Your task to perform on an android device: What's on Reddit this week Image 0: 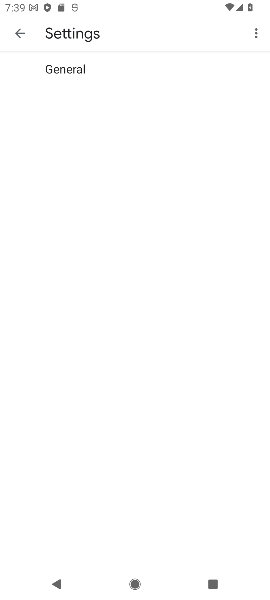
Step 0: press home button
Your task to perform on an android device: What's on Reddit this week Image 1: 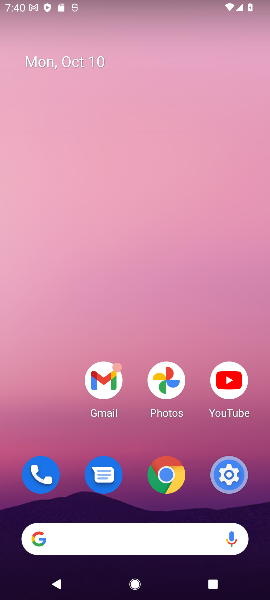
Step 1: drag from (61, 159) to (58, 125)
Your task to perform on an android device: What's on Reddit this week Image 2: 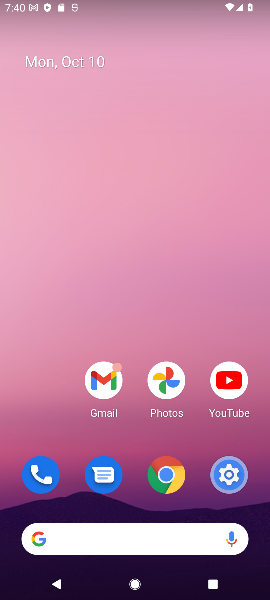
Step 2: drag from (150, 504) to (153, 51)
Your task to perform on an android device: What's on Reddit this week Image 3: 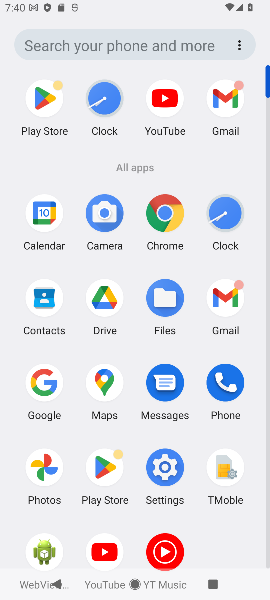
Step 3: click (109, 476)
Your task to perform on an android device: What's on Reddit this week Image 4: 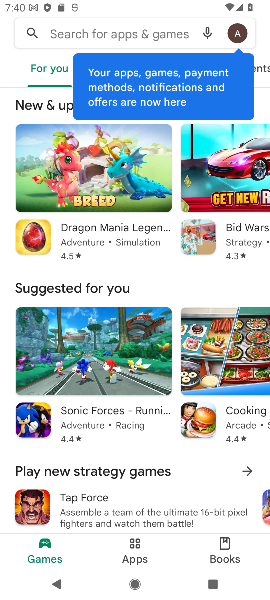
Step 4: click (127, 24)
Your task to perform on an android device: What's on Reddit this week Image 5: 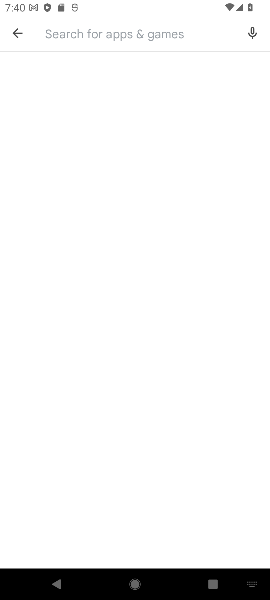
Step 5: type ""
Your task to perform on an android device: What's on Reddit this week Image 6: 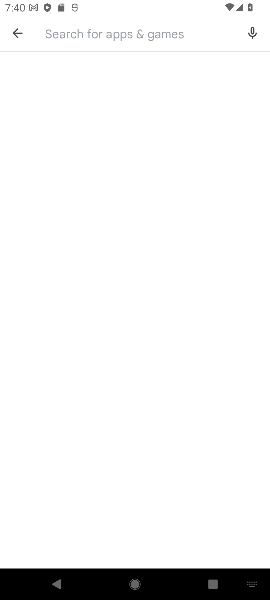
Step 6: type "reddit"
Your task to perform on an android device: What's on Reddit this week Image 7: 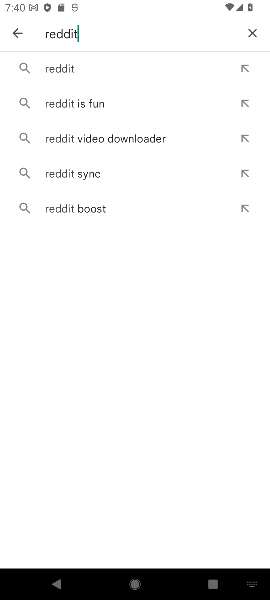
Step 7: click (57, 68)
Your task to perform on an android device: What's on Reddit this week Image 8: 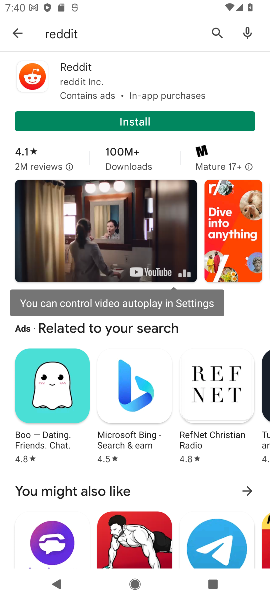
Step 8: task complete